Your task to perform on an android device: turn on the 24-hour format for clock Image 0: 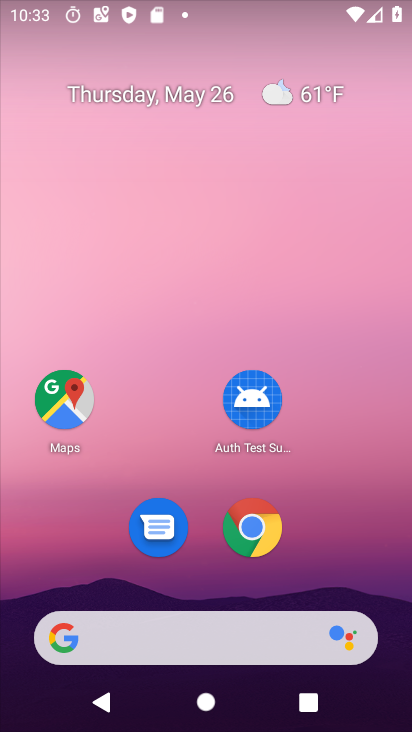
Step 0: drag from (344, 542) to (373, 1)
Your task to perform on an android device: turn on the 24-hour format for clock Image 1: 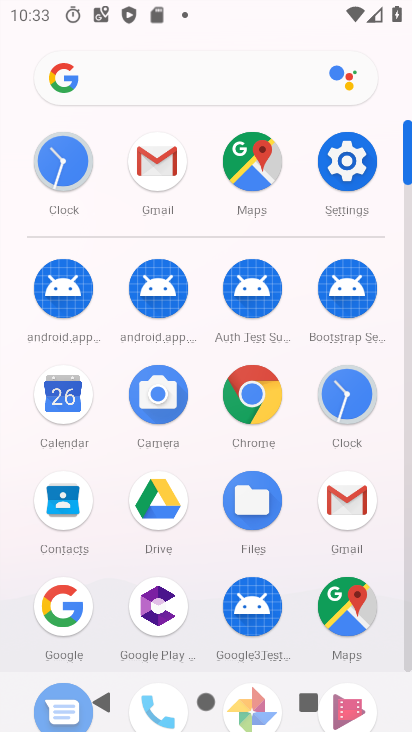
Step 1: click (78, 161)
Your task to perform on an android device: turn on the 24-hour format for clock Image 2: 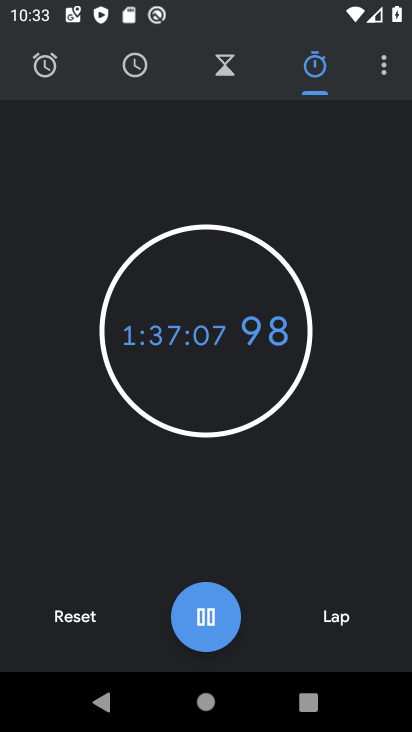
Step 2: click (366, 73)
Your task to perform on an android device: turn on the 24-hour format for clock Image 3: 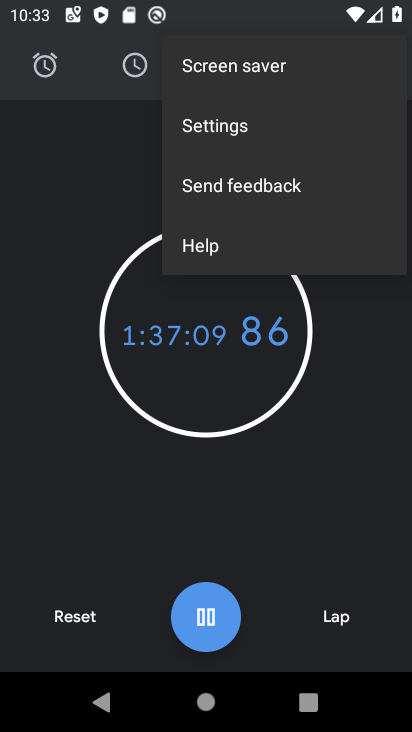
Step 3: click (261, 131)
Your task to perform on an android device: turn on the 24-hour format for clock Image 4: 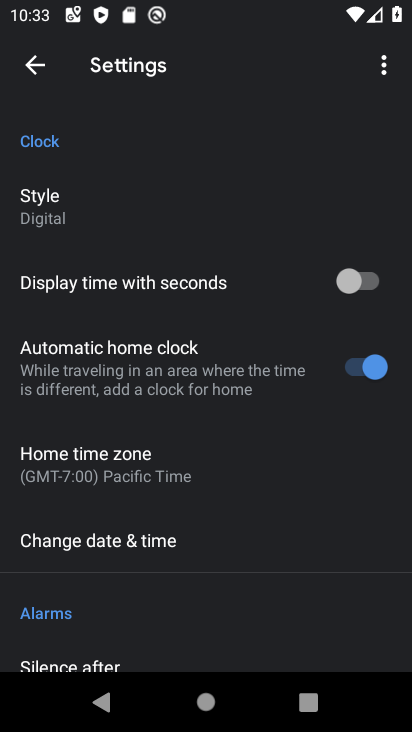
Step 4: drag from (211, 550) to (282, 200)
Your task to perform on an android device: turn on the 24-hour format for clock Image 5: 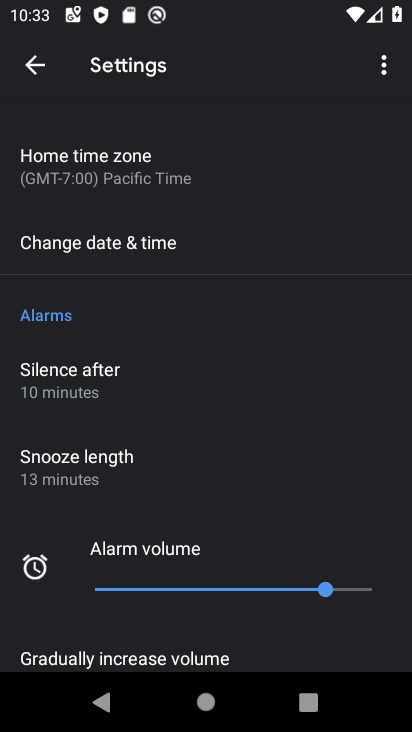
Step 5: click (124, 247)
Your task to perform on an android device: turn on the 24-hour format for clock Image 6: 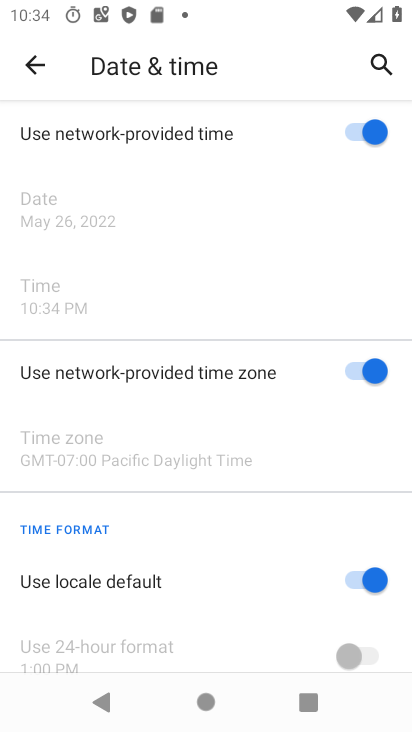
Step 6: task complete